Your task to perform on an android device: Go to Google maps Image 0: 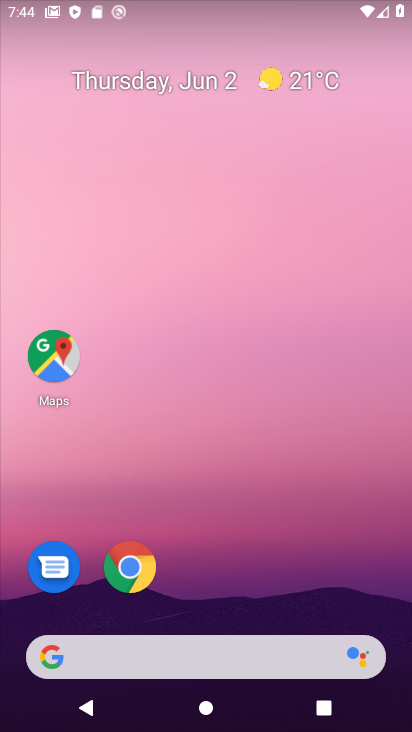
Step 0: click (54, 357)
Your task to perform on an android device: Go to Google maps Image 1: 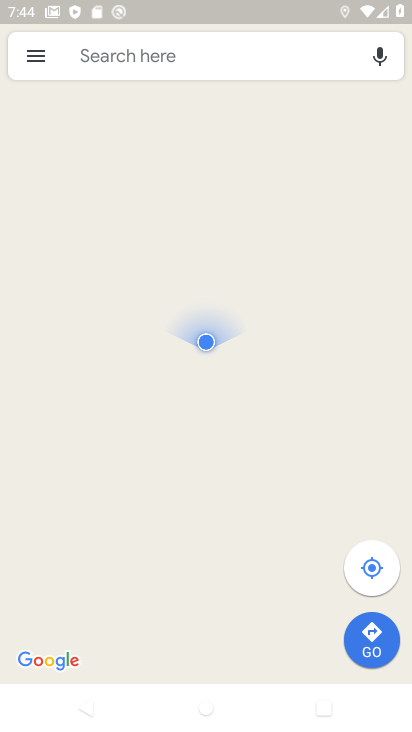
Step 1: task complete